Your task to perform on an android device: turn on priority inbox in the gmail app Image 0: 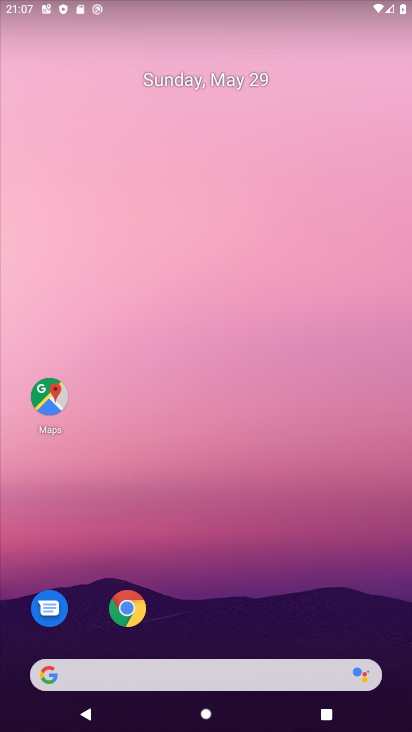
Step 0: drag from (354, 612) to (375, 230)
Your task to perform on an android device: turn on priority inbox in the gmail app Image 1: 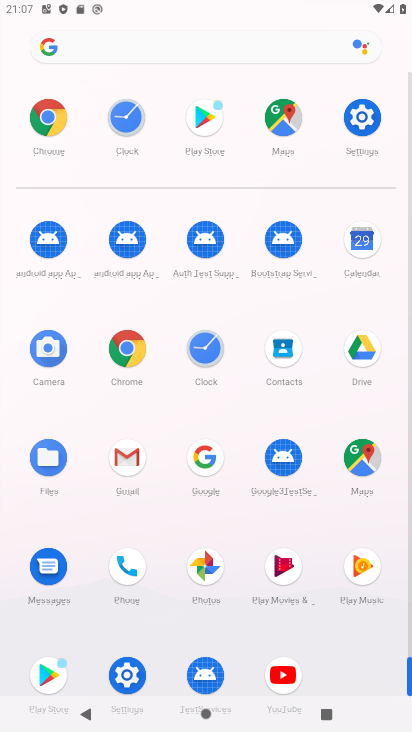
Step 1: click (133, 459)
Your task to perform on an android device: turn on priority inbox in the gmail app Image 2: 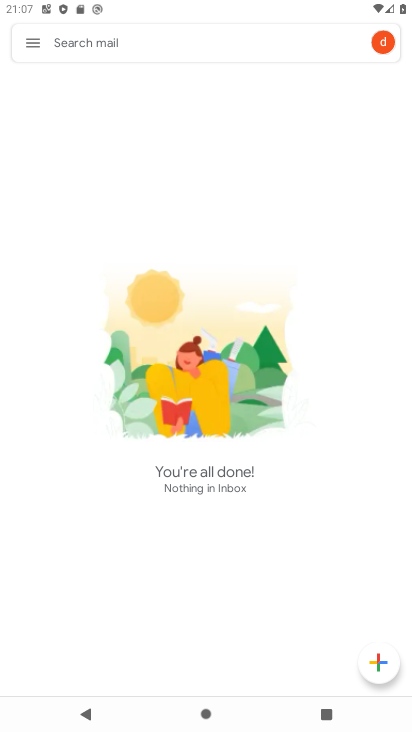
Step 2: click (33, 38)
Your task to perform on an android device: turn on priority inbox in the gmail app Image 3: 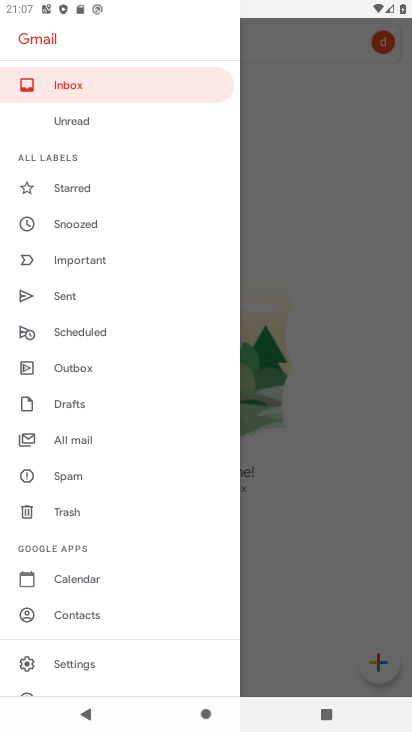
Step 3: drag from (165, 551) to (194, 435)
Your task to perform on an android device: turn on priority inbox in the gmail app Image 4: 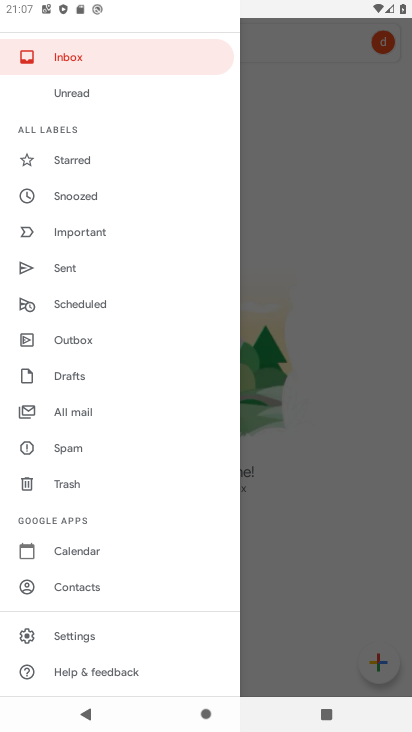
Step 4: click (123, 643)
Your task to perform on an android device: turn on priority inbox in the gmail app Image 5: 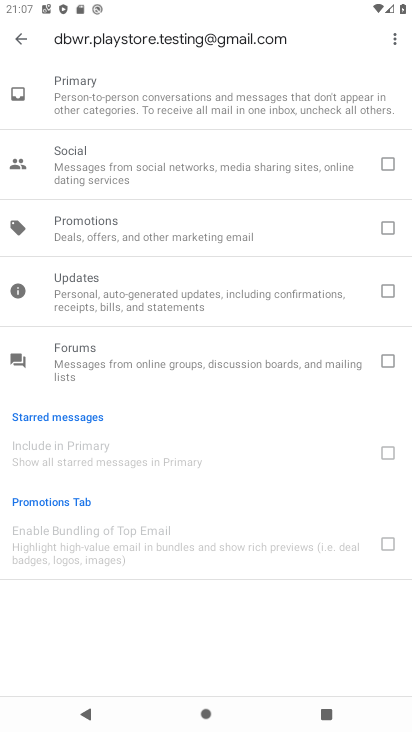
Step 5: click (13, 39)
Your task to perform on an android device: turn on priority inbox in the gmail app Image 6: 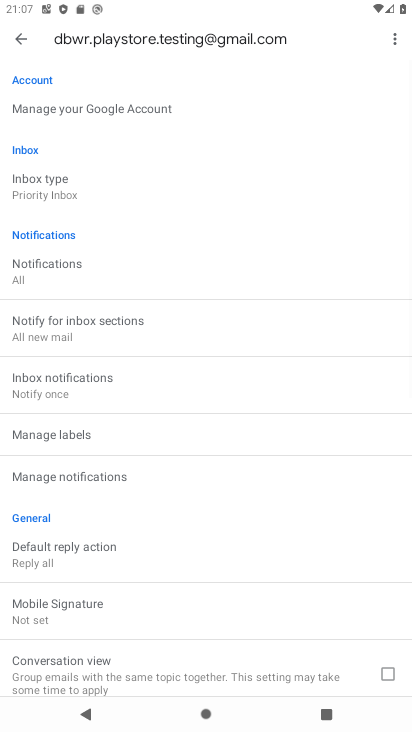
Step 6: task complete